Your task to perform on an android device: Go to network settings Image 0: 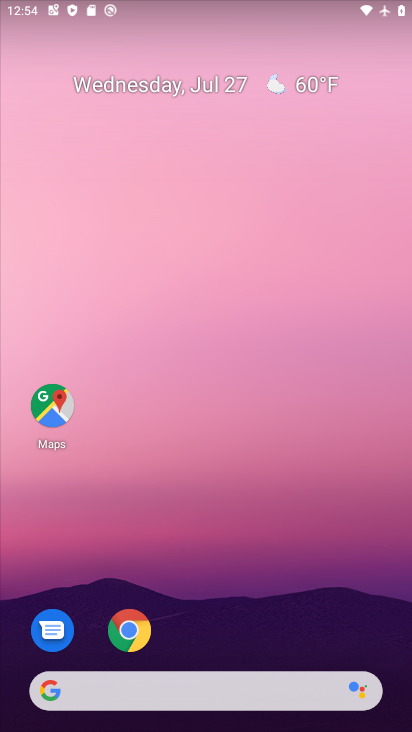
Step 0: drag from (232, 639) to (295, 196)
Your task to perform on an android device: Go to network settings Image 1: 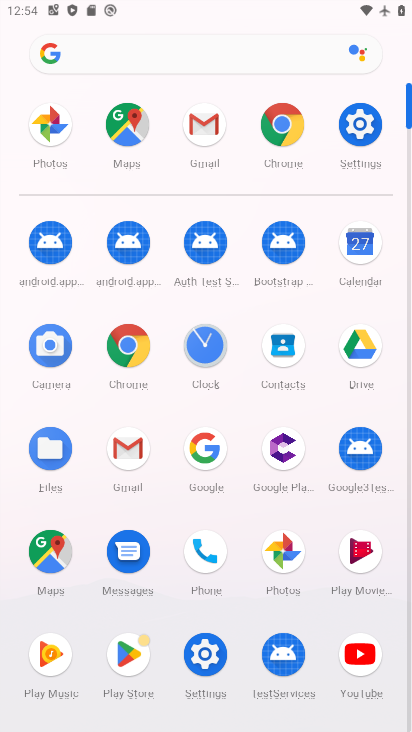
Step 1: click (355, 128)
Your task to perform on an android device: Go to network settings Image 2: 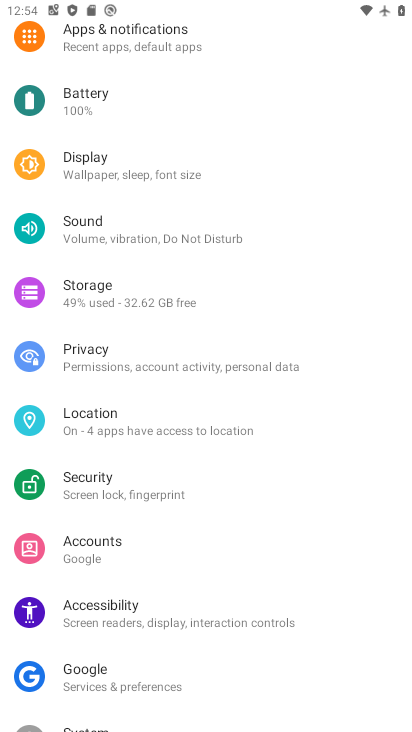
Step 2: drag from (221, 164) to (232, 721)
Your task to perform on an android device: Go to network settings Image 3: 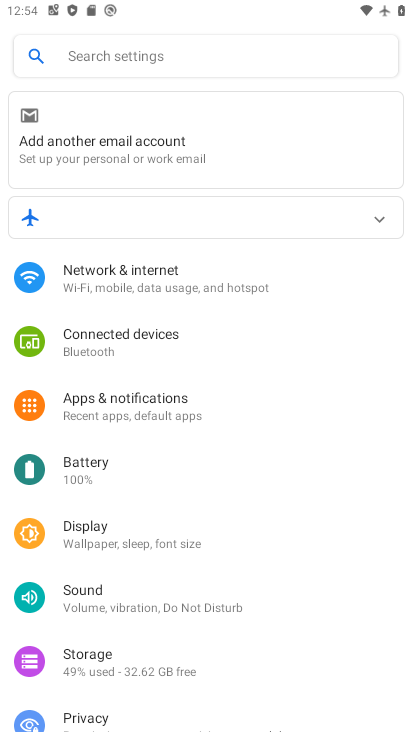
Step 3: click (121, 279)
Your task to perform on an android device: Go to network settings Image 4: 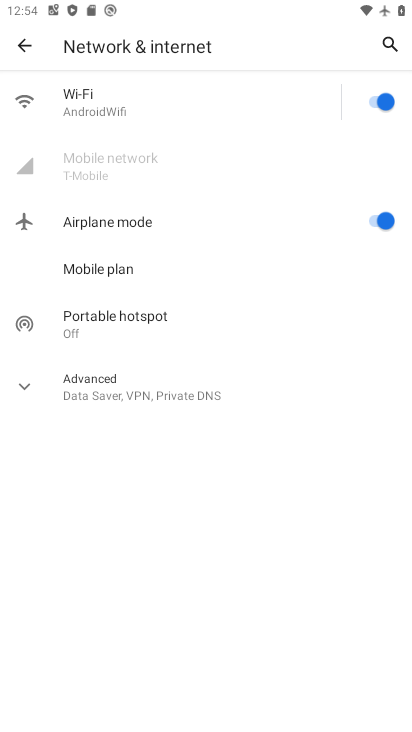
Step 4: task complete